Your task to perform on an android device: Open Google Chrome Image 0: 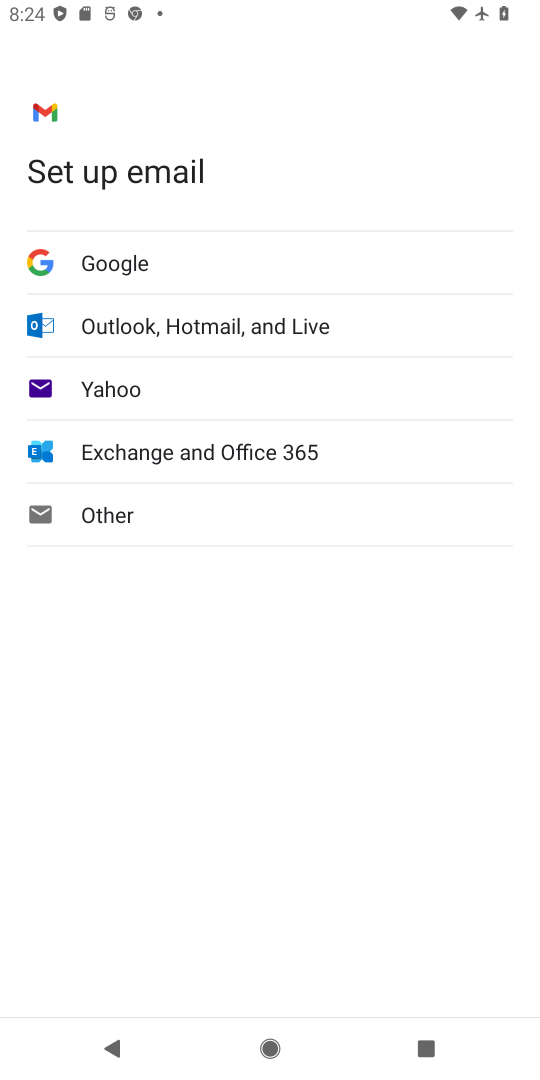
Step 0: press home button
Your task to perform on an android device: Open Google Chrome Image 1: 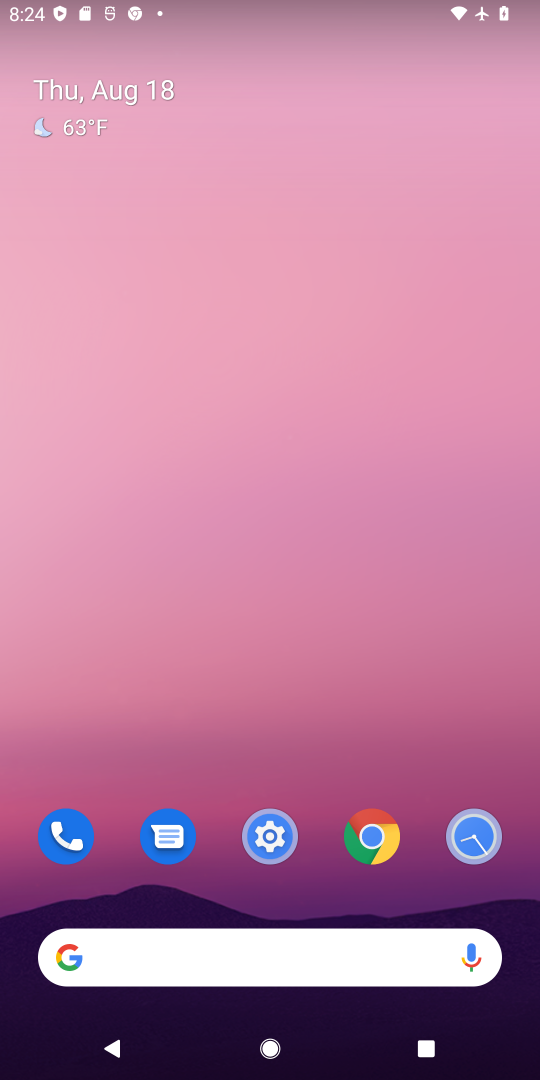
Step 1: drag from (411, 830) to (427, 183)
Your task to perform on an android device: Open Google Chrome Image 2: 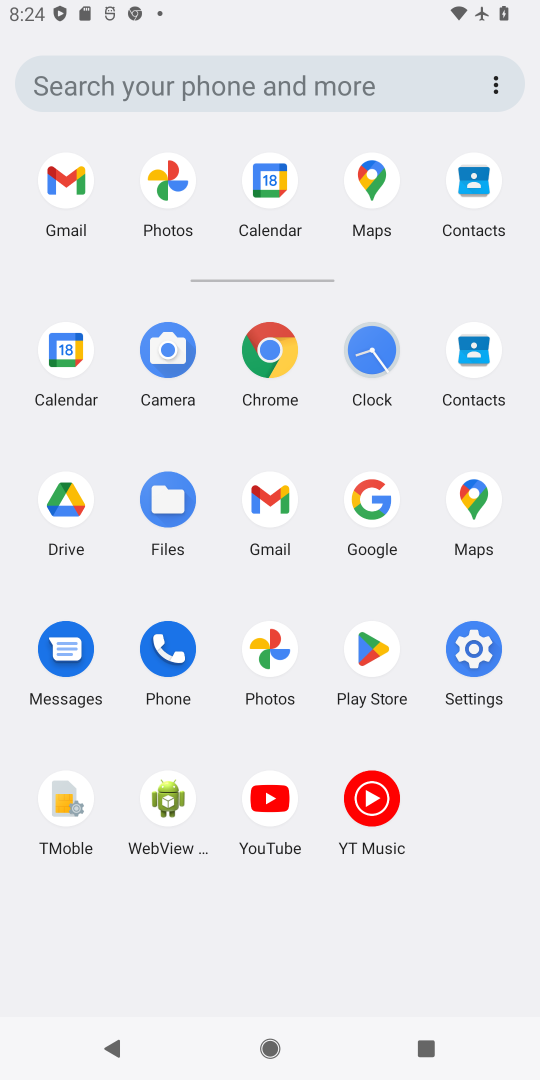
Step 2: click (268, 360)
Your task to perform on an android device: Open Google Chrome Image 3: 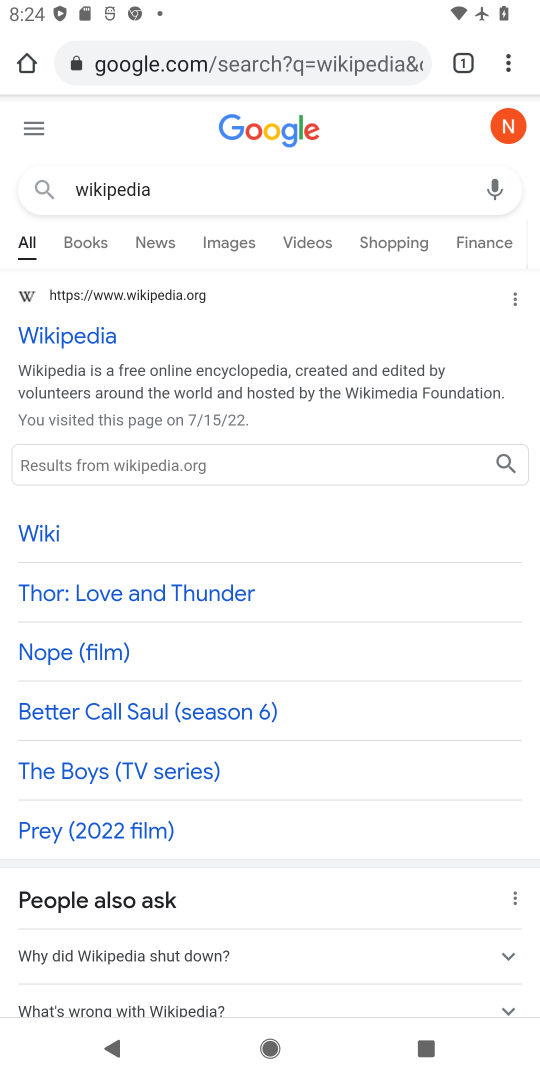
Step 3: task complete